Your task to perform on an android device: show emergency info Image 0: 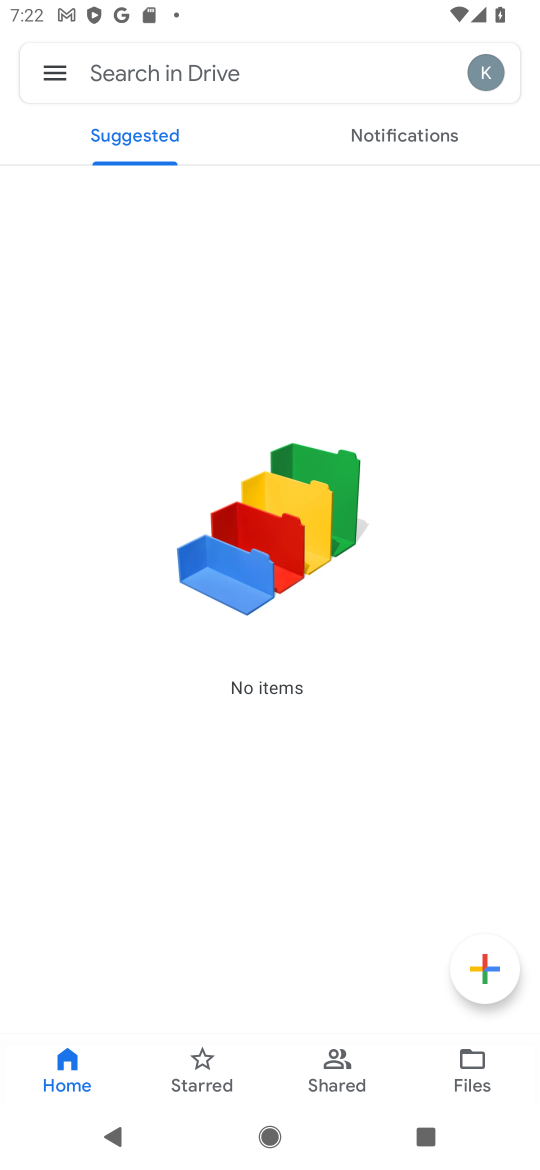
Step 0: press home button
Your task to perform on an android device: show emergency info Image 1: 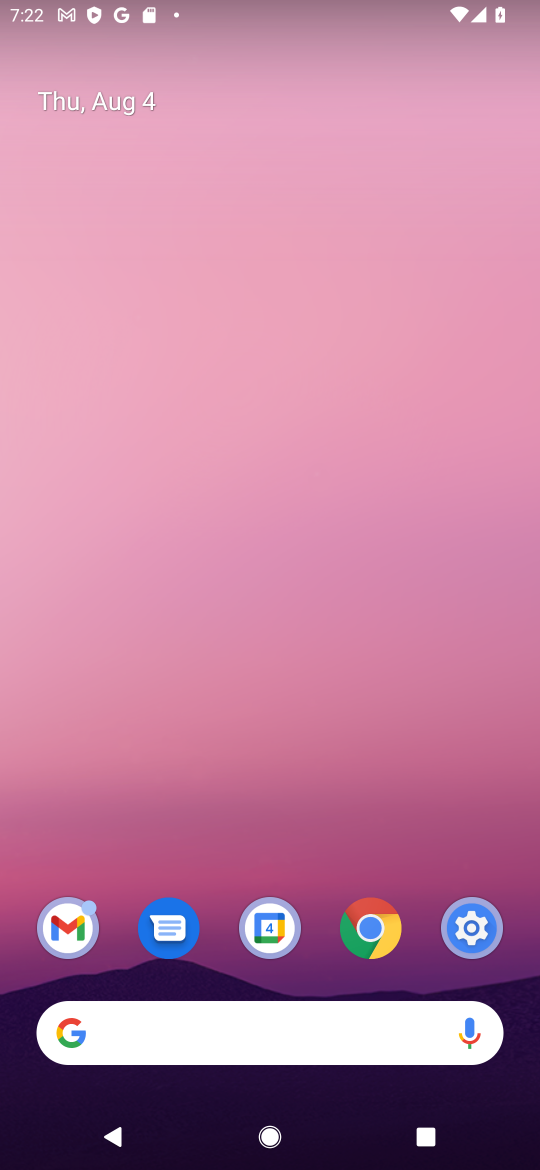
Step 1: drag from (205, 959) to (270, 164)
Your task to perform on an android device: show emergency info Image 2: 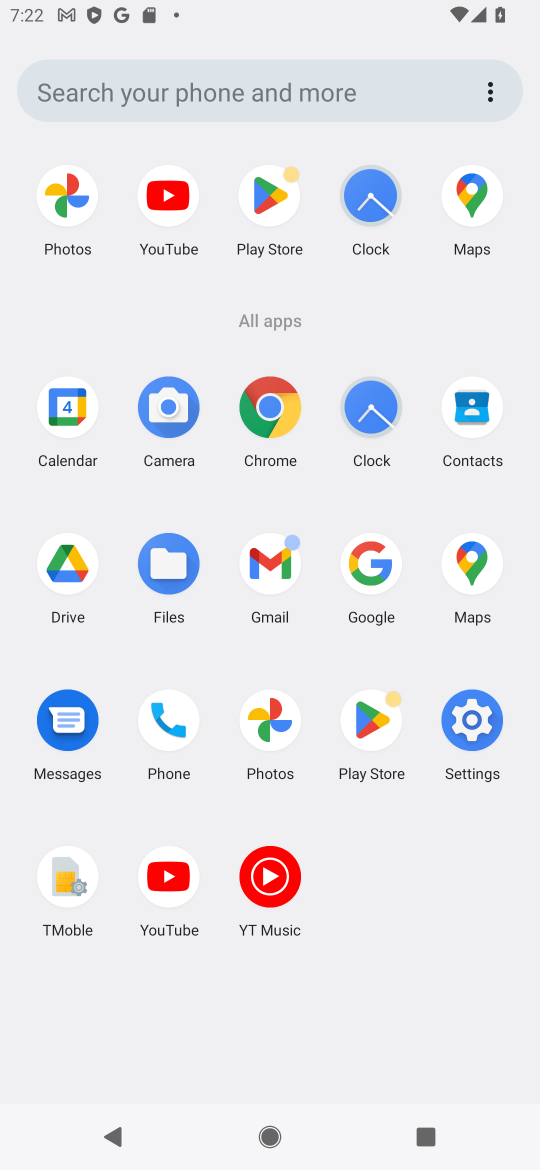
Step 2: click (485, 735)
Your task to perform on an android device: show emergency info Image 3: 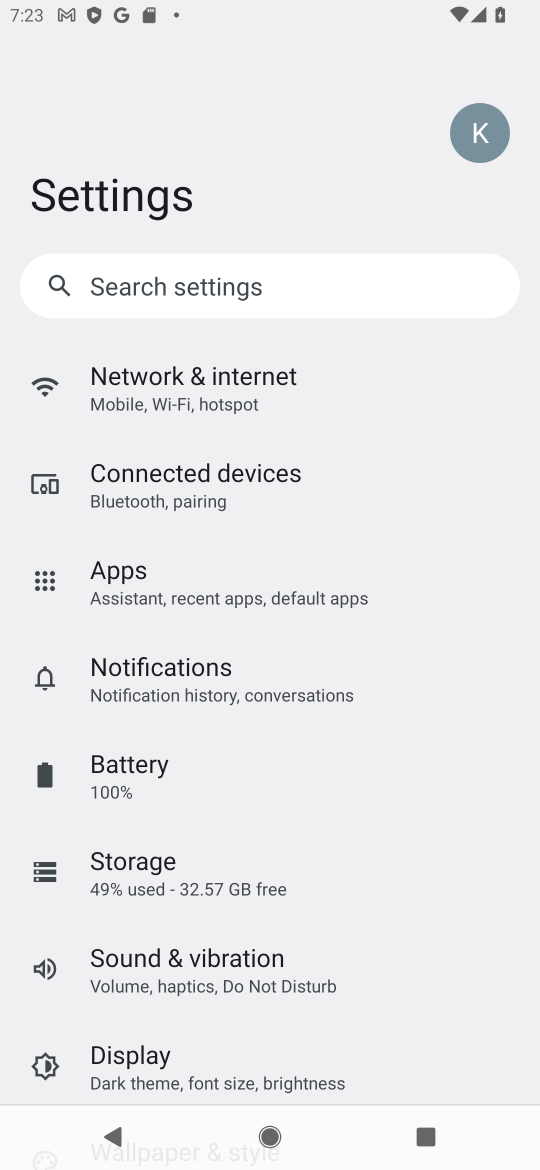
Step 3: drag from (203, 859) to (242, 340)
Your task to perform on an android device: show emergency info Image 4: 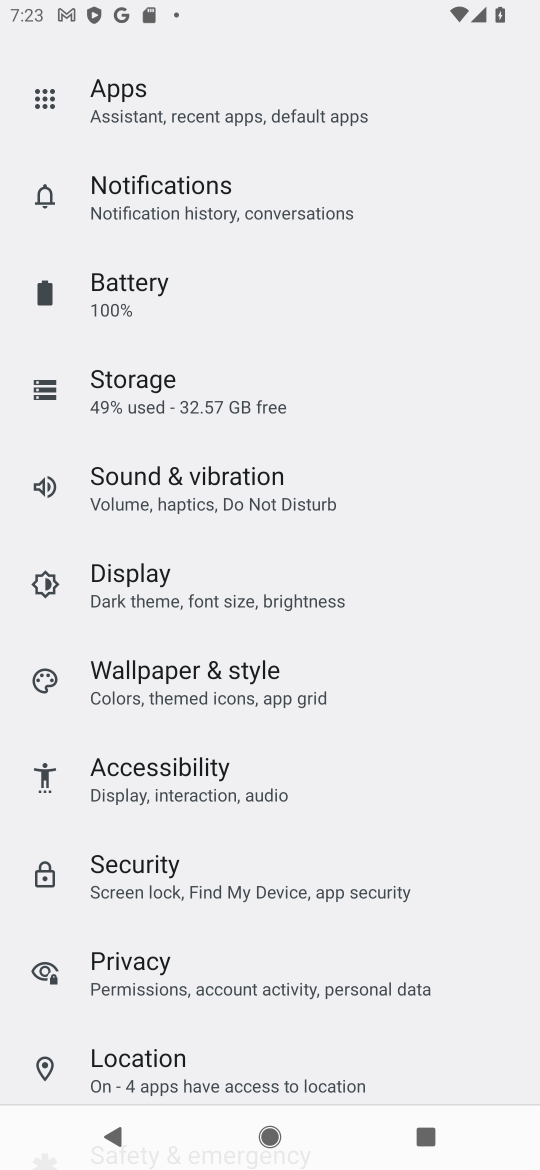
Step 4: drag from (221, 1001) to (222, 538)
Your task to perform on an android device: show emergency info Image 5: 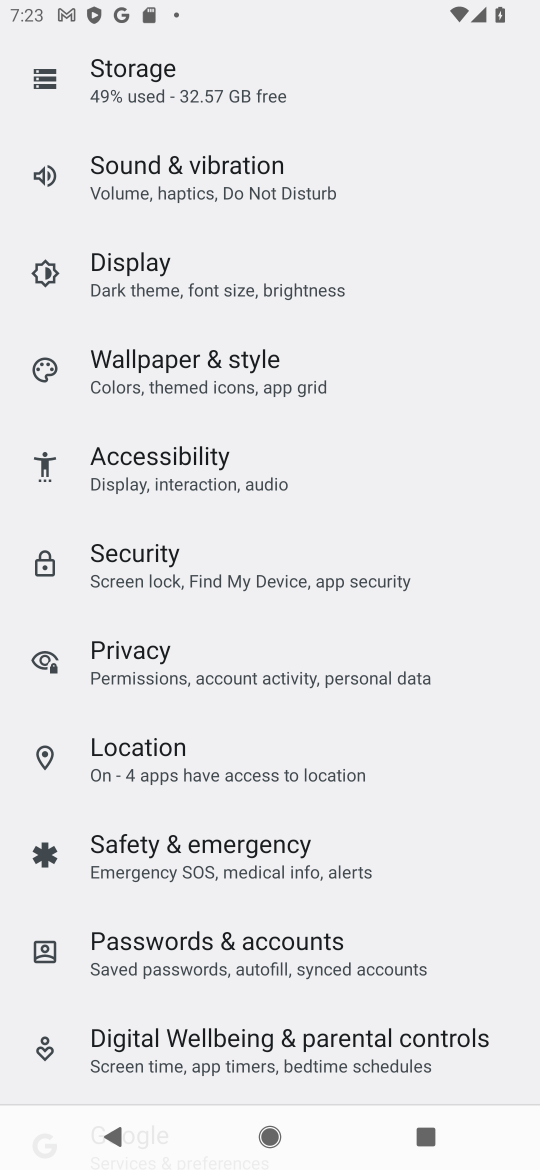
Step 5: drag from (232, 982) to (215, 718)
Your task to perform on an android device: show emergency info Image 6: 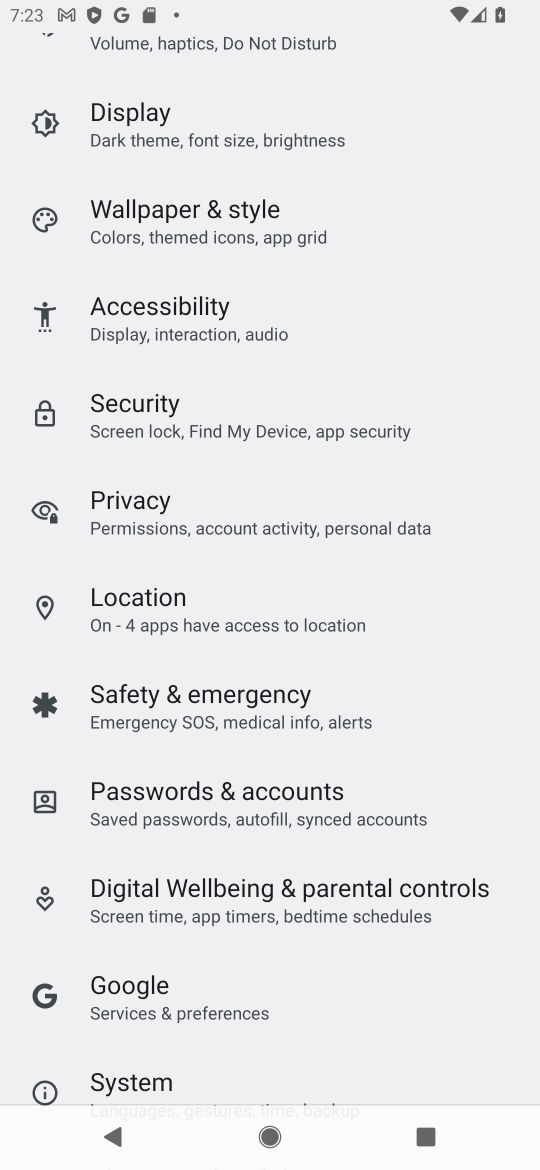
Step 6: drag from (237, 1021) to (249, 712)
Your task to perform on an android device: show emergency info Image 7: 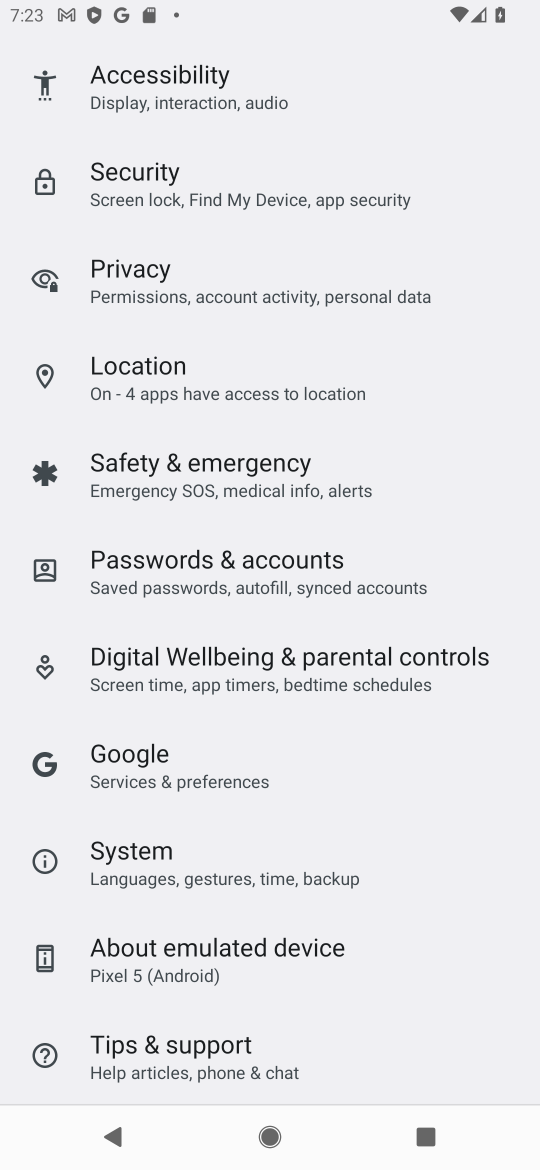
Step 7: click (195, 873)
Your task to perform on an android device: show emergency info Image 8: 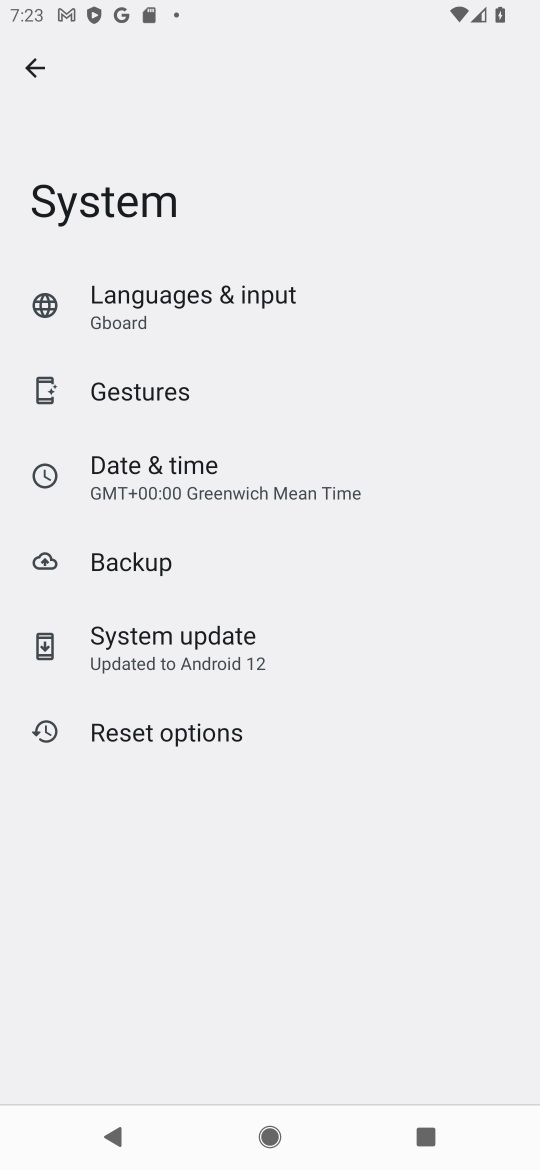
Step 8: click (25, 64)
Your task to perform on an android device: show emergency info Image 9: 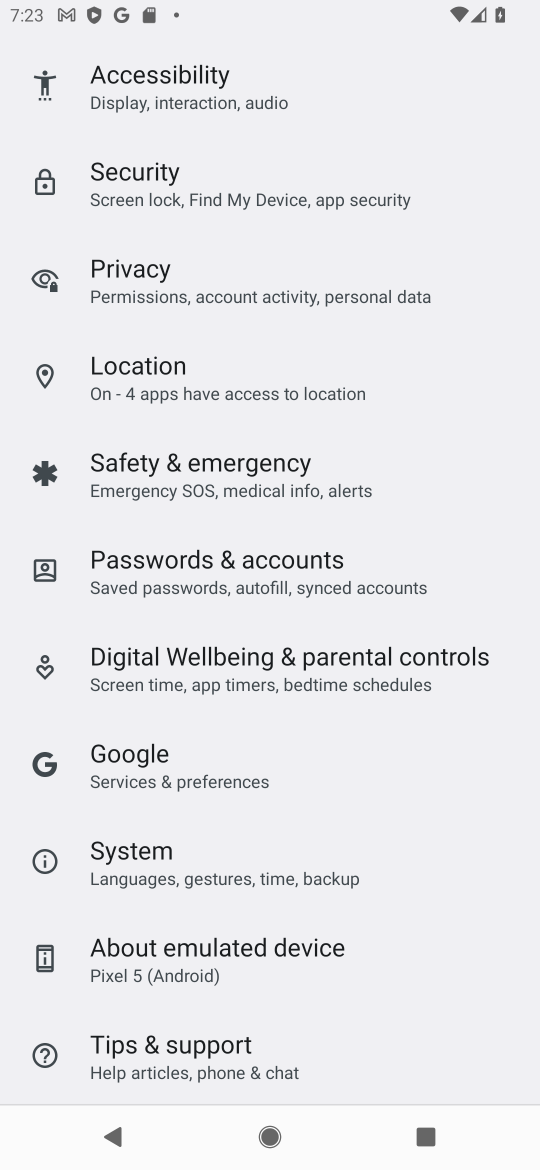
Step 9: click (213, 974)
Your task to perform on an android device: show emergency info Image 10: 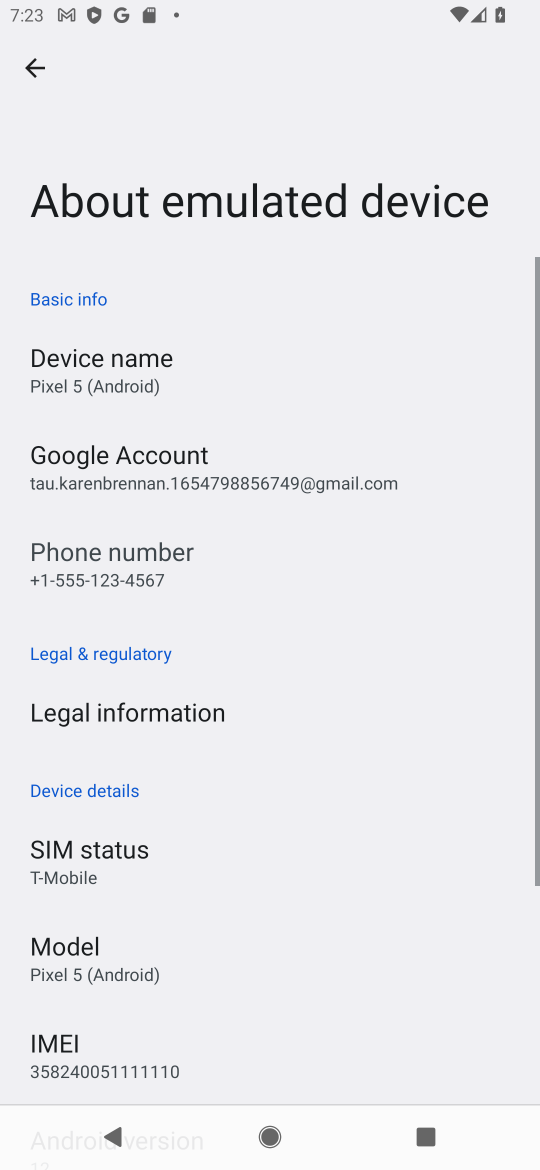
Step 10: task complete